Your task to perform on an android device: turn on translation in the chrome app Image 0: 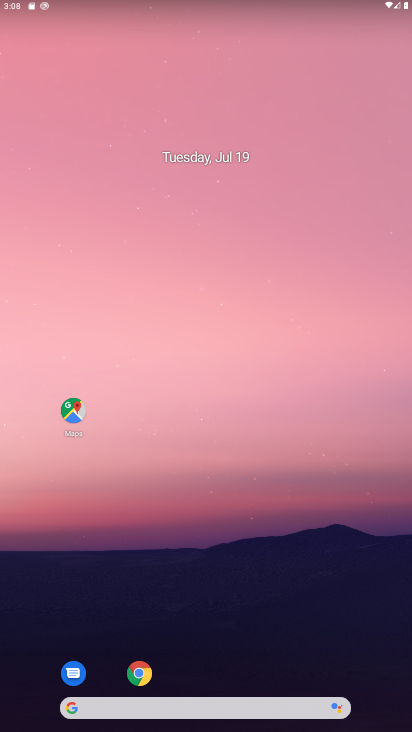
Step 0: drag from (258, 617) to (293, 172)
Your task to perform on an android device: turn on translation in the chrome app Image 1: 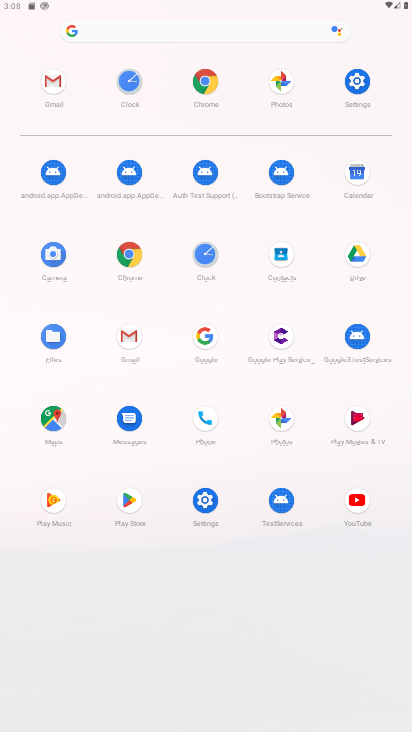
Step 1: click (129, 253)
Your task to perform on an android device: turn on translation in the chrome app Image 2: 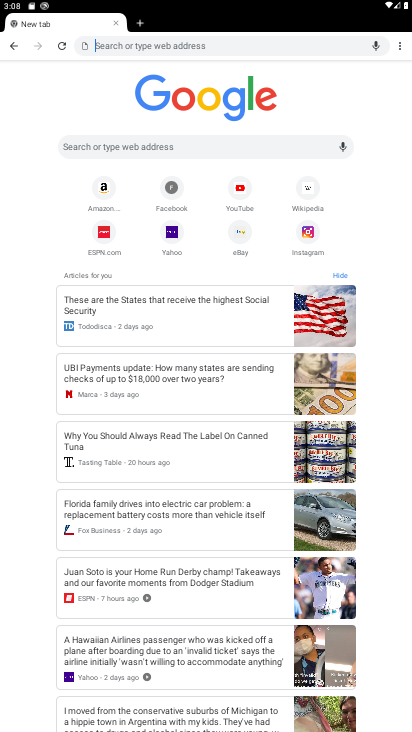
Step 2: click (398, 37)
Your task to perform on an android device: turn on translation in the chrome app Image 3: 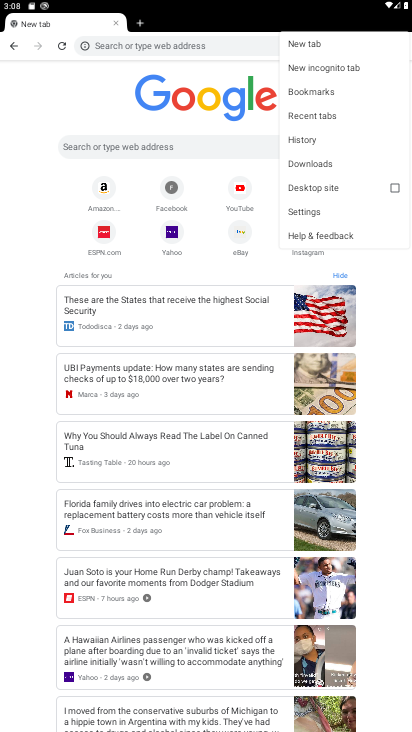
Step 3: click (309, 210)
Your task to perform on an android device: turn on translation in the chrome app Image 4: 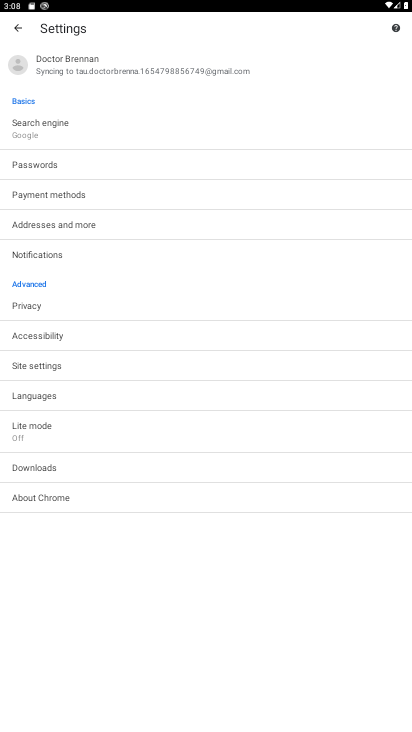
Step 4: click (48, 395)
Your task to perform on an android device: turn on translation in the chrome app Image 5: 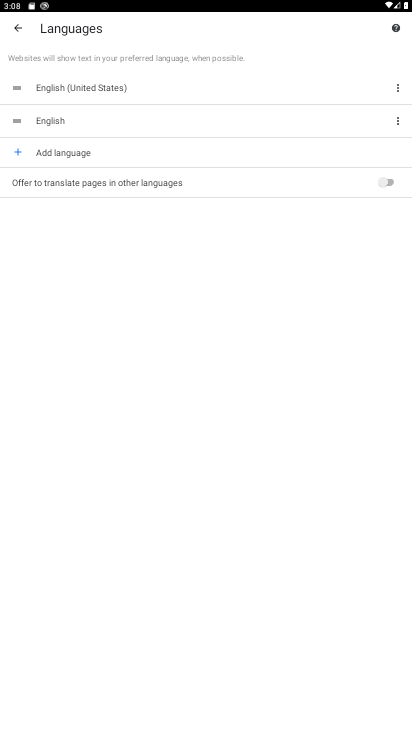
Step 5: click (363, 185)
Your task to perform on an android device: turn on translation in the chrome app Image 6: 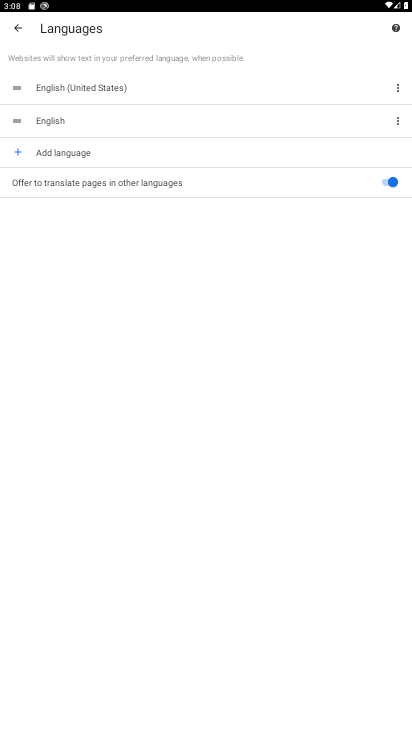
Step 6: task complete